Your task to perform on an android device: Open Google Chrome and open the bookmarks view Image 0: 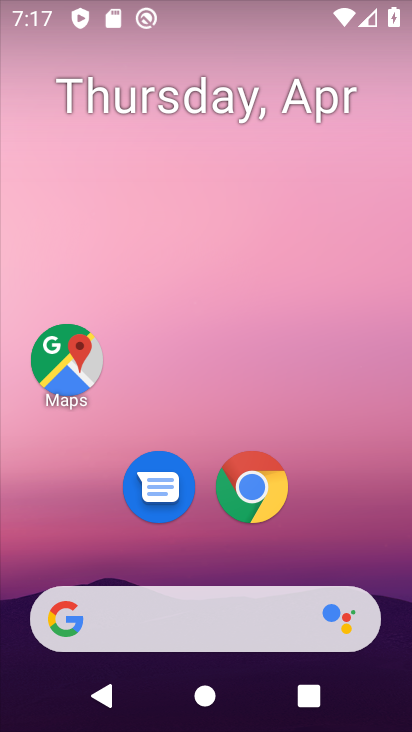
Step 0: drag from (354, 542) to (319, 66)
Your task to perform on an android device: Open Google Chrome and open the bookmarks view Image 1: 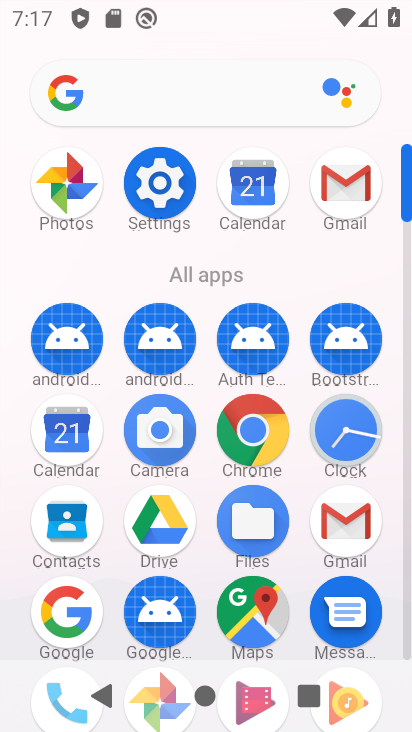
Step 1: click (250, 423)
Your task to perform on an android device: Open Google Chrome and open the bookmarks view Image 2: 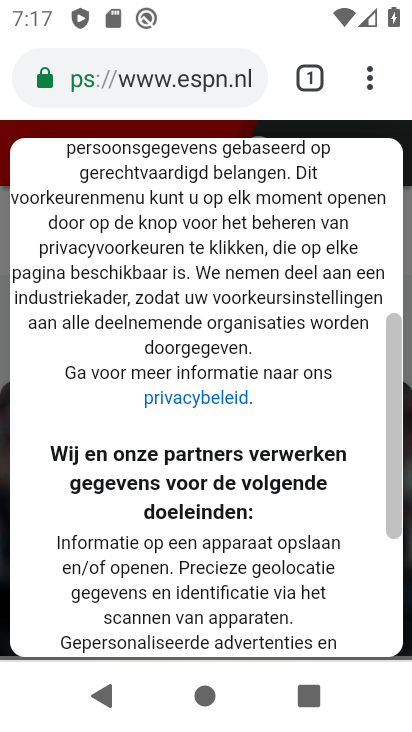
Step 2: click (102, 693)
Your task to perform on an android device: Open Google Chrome and open the bookmarks view Image 3: 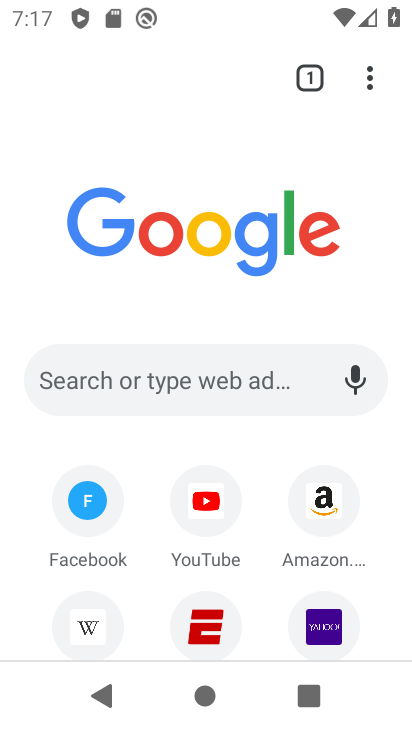
Step 3: click (375, 72)
Your task to perform on an android device: Open Google Chrome and open the bookmarks view Image 4: 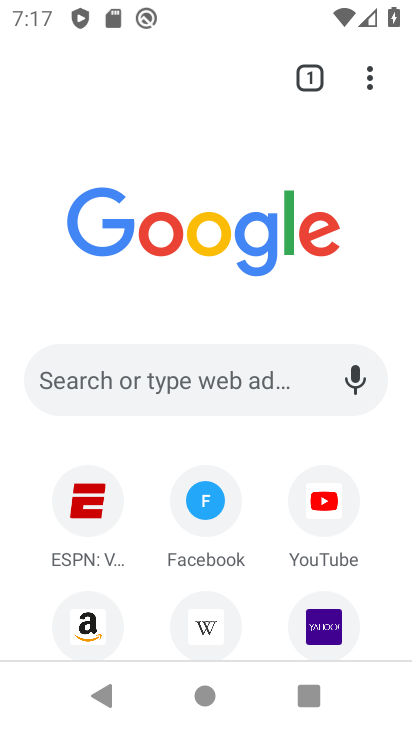
Step 4: click (369, 72)
Your task to perform on an android device: Open Google Chrome and open the bookmarks view Image 5: 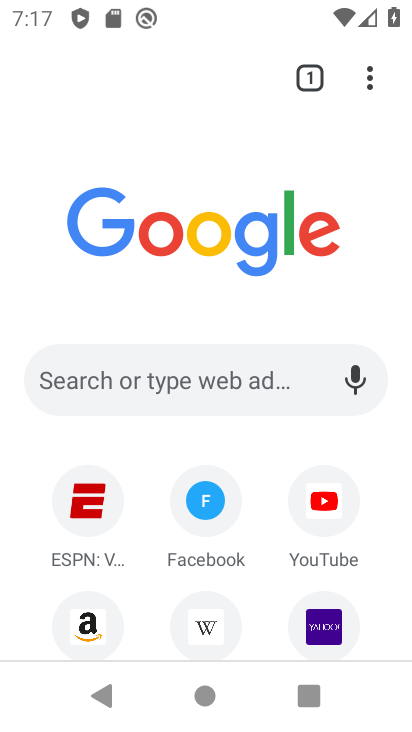
Step 5: click (369, 72)
Your task to perform on an android device: Open Google Chrome and open the bookmarks view Image 6: 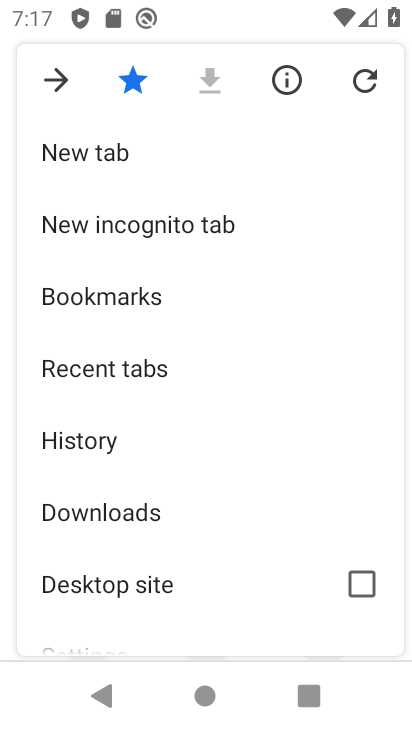
Step 6: click (191, 297)
Your task to perform on an android device: Open Google Chrome and open the bookmarks view Image 7: 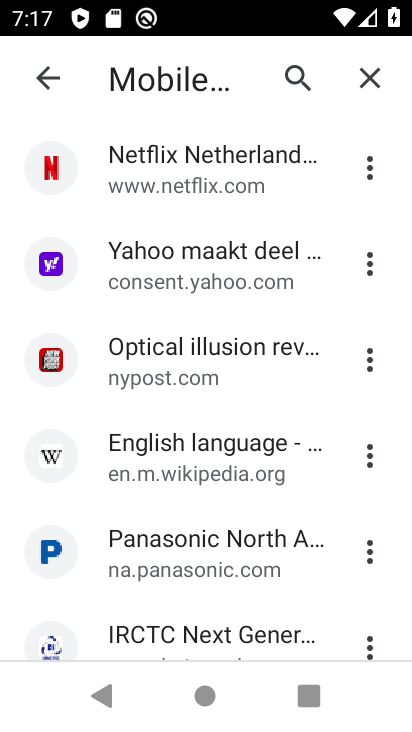
Step 7: task complete